Your task to perform on an android device: all mails in gmail Image 0: 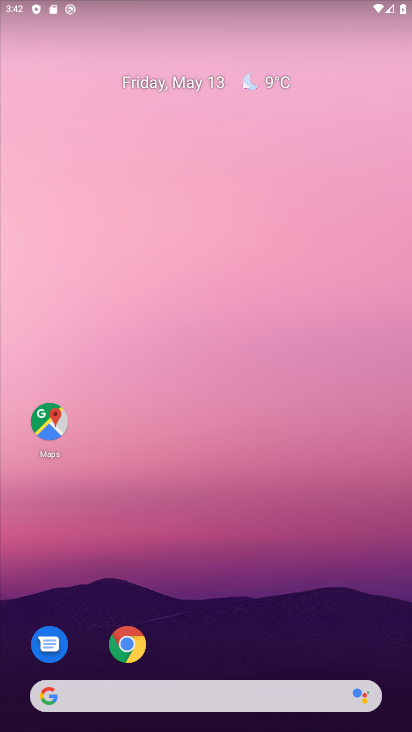
Step 0: drag from (192, 600) to (225, 155)
Your task to perform on an android device: all mails in gmail Image 1: 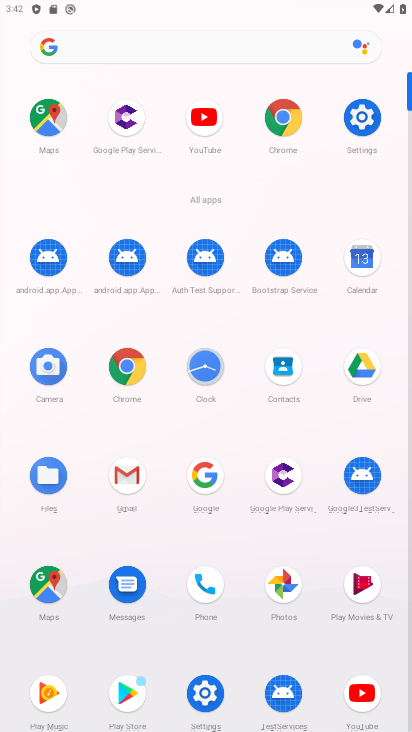
Step 1: click (132, 475)
Your task to perform on an android device: all mails in gmail Image 2: 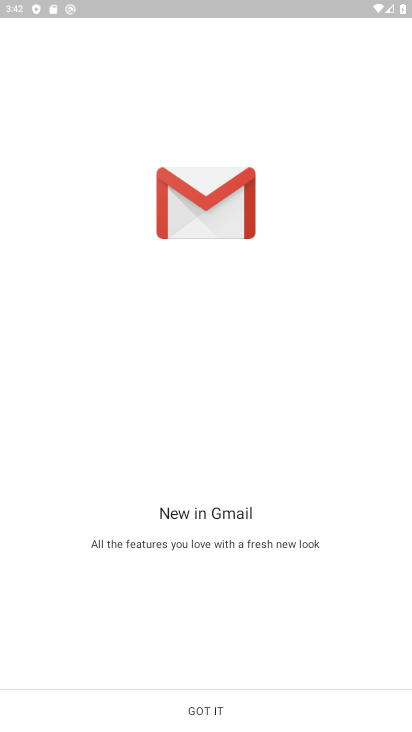
Step 2: click (222, 725)
Your task to perform on an android device: all mails in gmail Image 3: 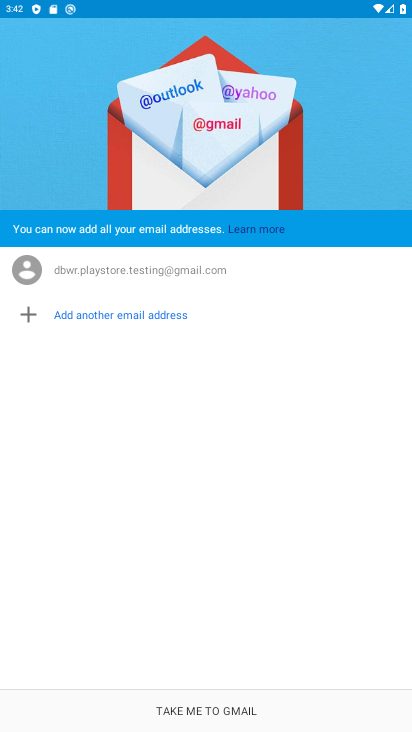
Step 3: click (210, 704)
Your task to perform on an android device: all mails in gmail Image 4: 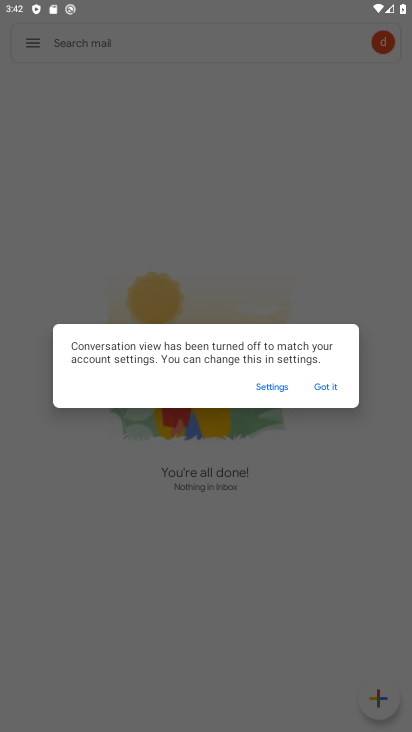
Step 4: click (330, 390)
Your task to perform on an android device: all mails in gmail Image 5: 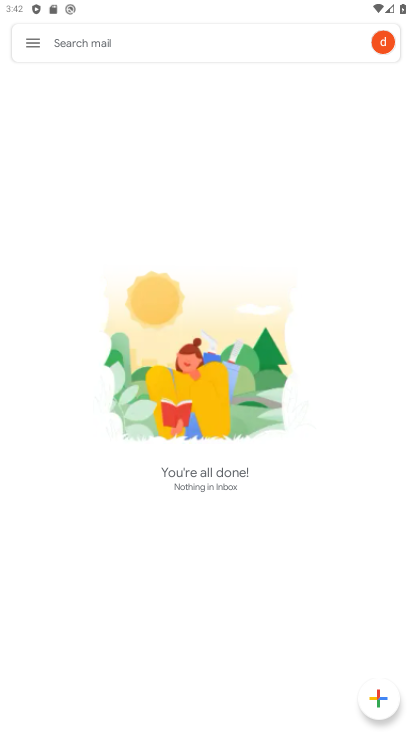
Step 5: click (30, 46)
Your task to perform on an android device: all mails in gmail Image 6: 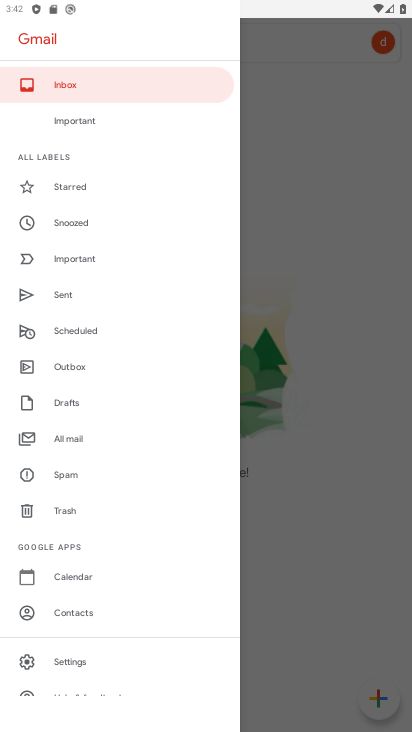
Step 6: click (94, 443)
Your task to perform on an android device: all mails in gmail Image 7: 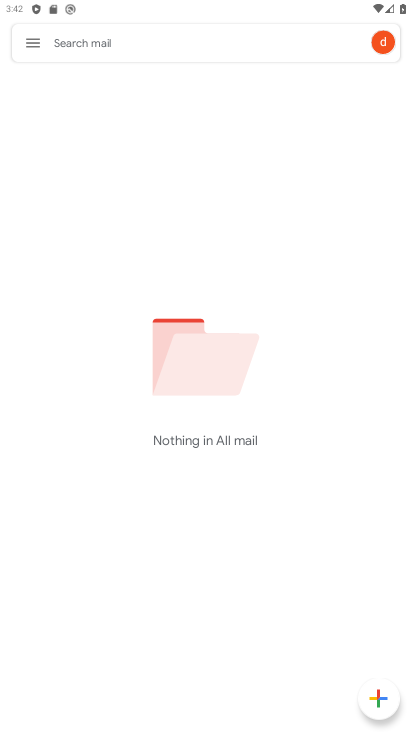
Step 7: task complete